Your task to perform on an android device: Open Chrome and go to the settings page Image 0: 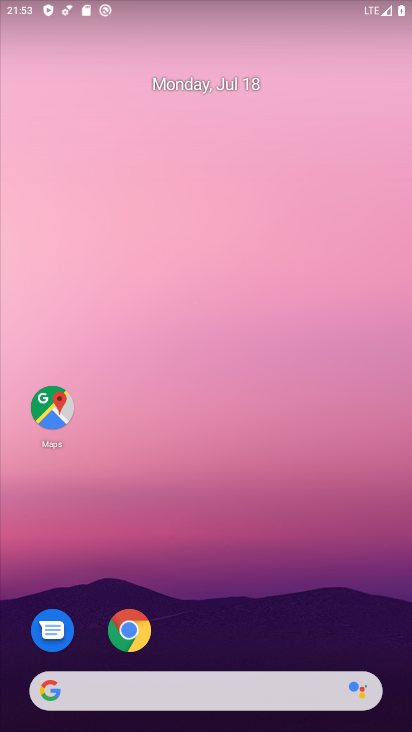
Step 0: drag from (243, 539) to (241, 261)
Your task to perform on an android device: Open Chrome and go to the settings page Image 1: 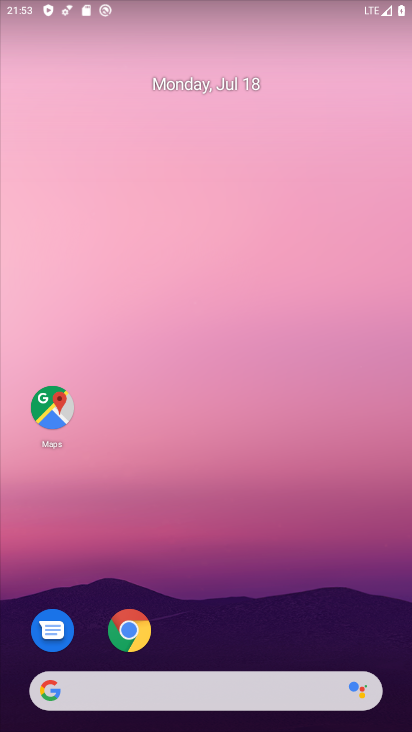
Step 1: drag from (194, 633) to (189, 207)
Your task to perform on an android device: Open Chrome and go to the settings page Image 2: 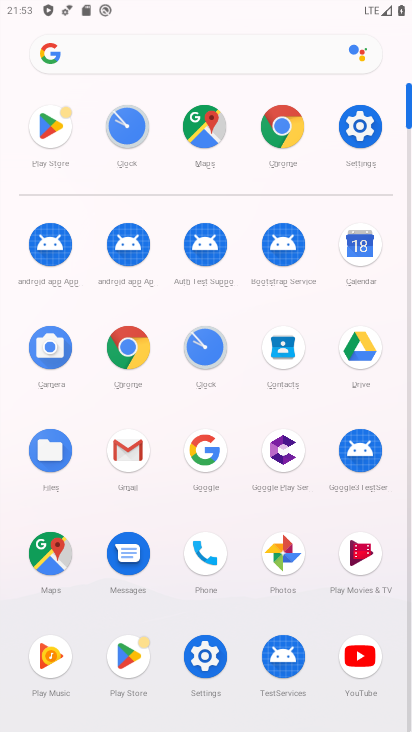
Step 2: click (277, 126)
Your task to perform on an android device: Open Chrome and go to the settings page Image 3: 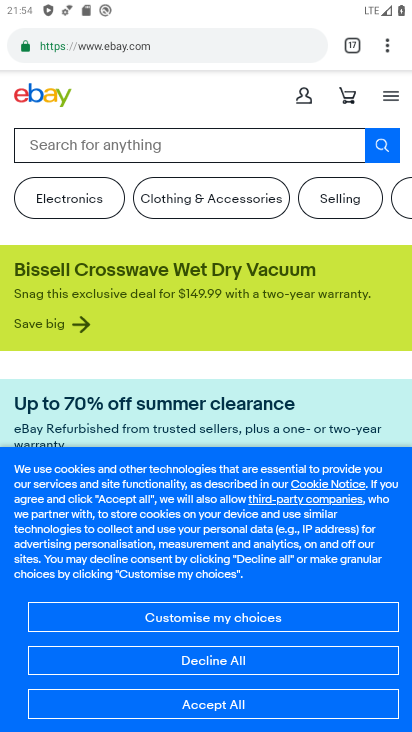
Step 3: click (389, 40)
Your task to perform on an android device: Open Chrome and go to the settings page Image 4: 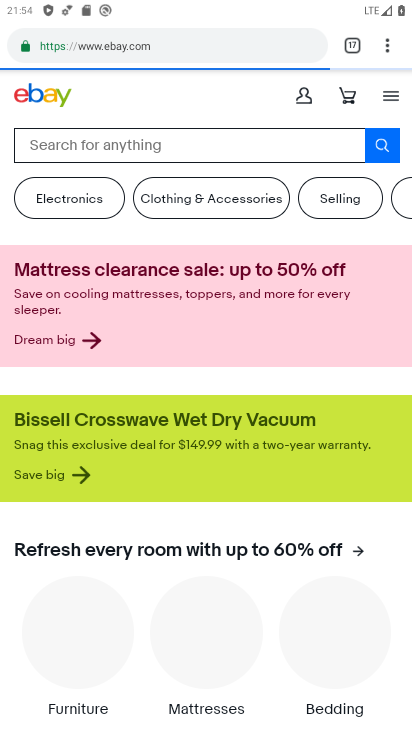
Step 4: click (389, 40)
Your task to perform on an android device: Open Chrome and go to the settings page Image 5: 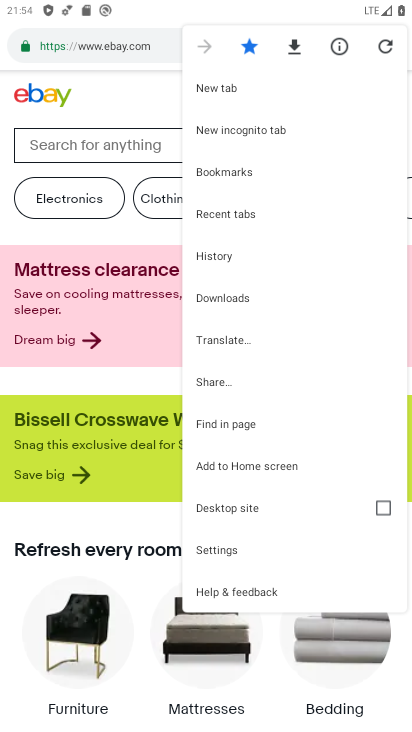
Step 5: click (228, 555)
Your task to perform on an android device: Open Chrome and go to the settings page Image 6: 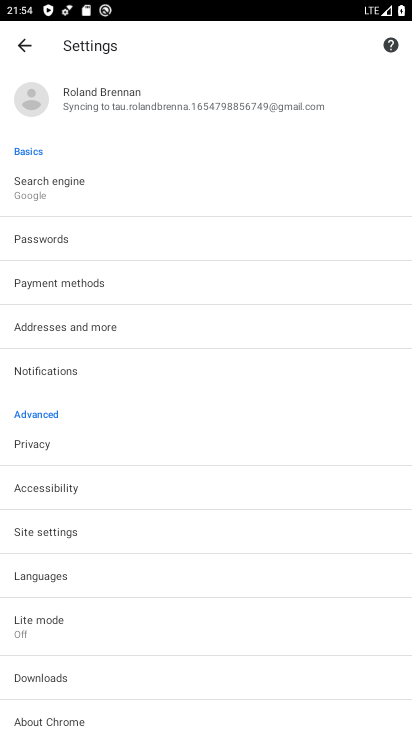
Step 6: task complete